Your task to perform on an android device: open a new tab in the chrome app Image 0: 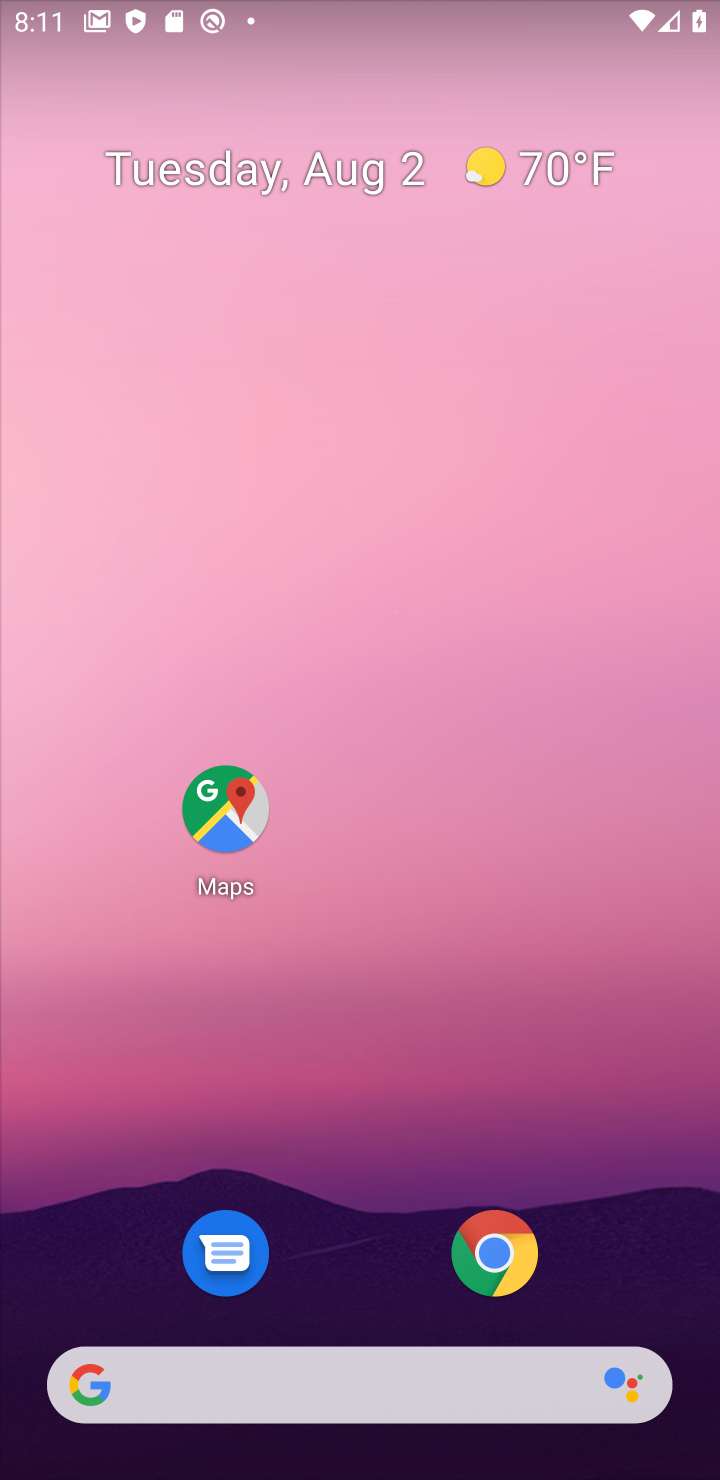
Step 0: click (495, 1250)
Your task to perform on an android device: open a new tab in the chrome app Image 1: 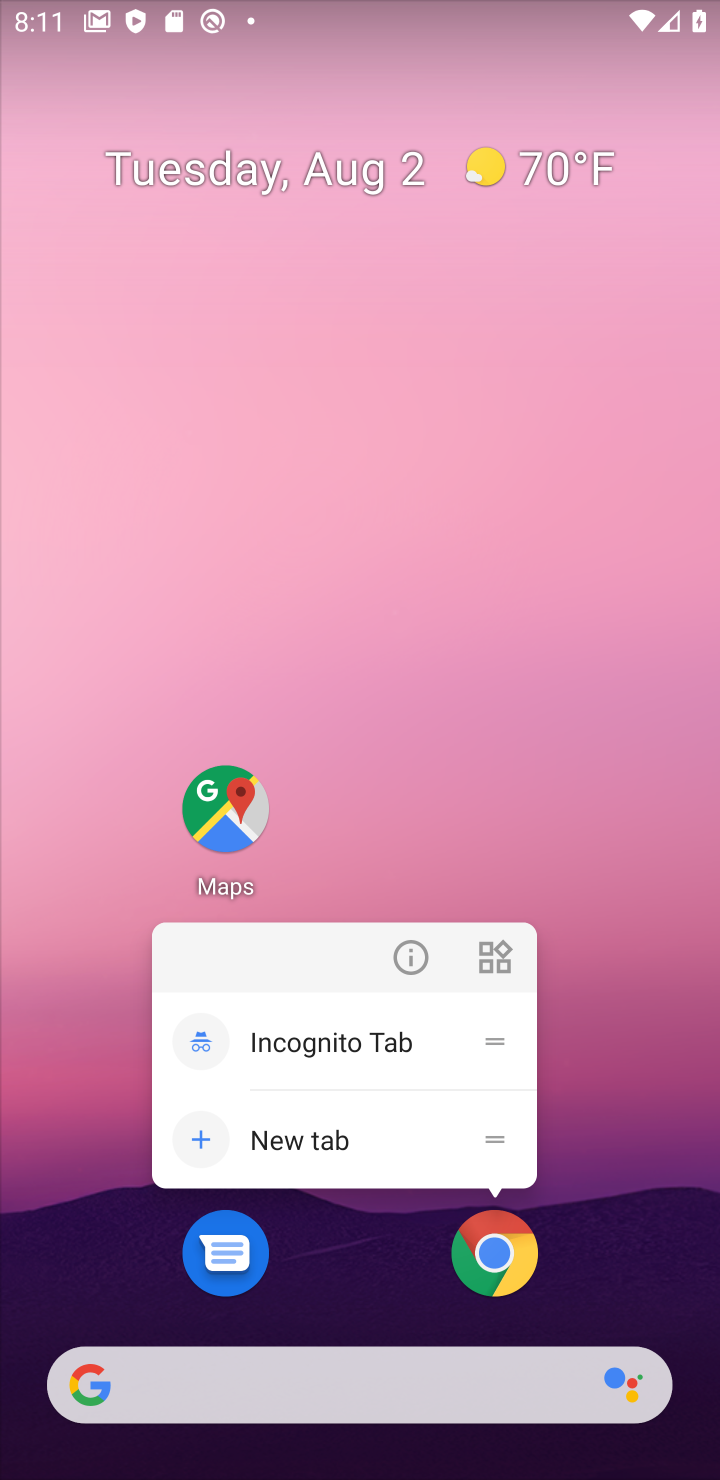
Step 1: click (495, 1250)
Your task to perform on an android device: open a new tab in the chrome app Image 2: 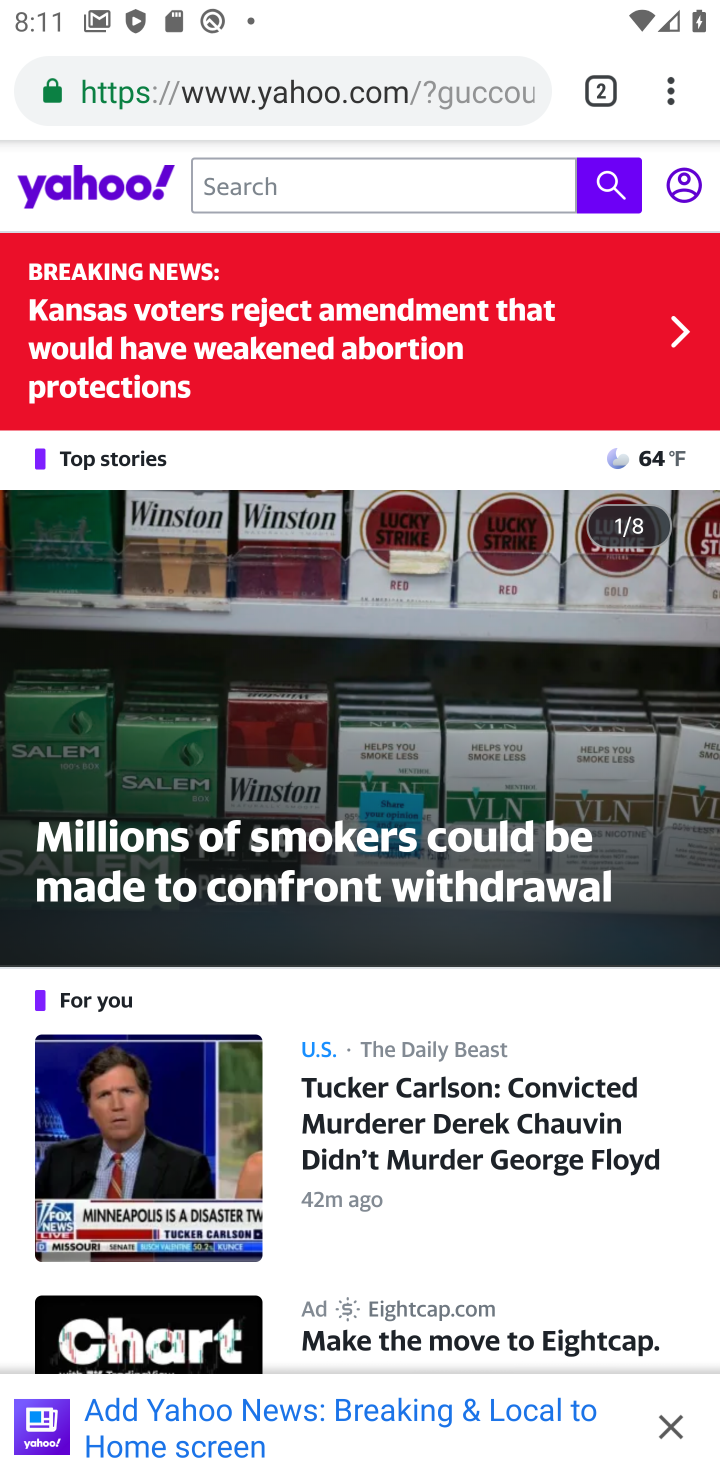
Step 2: task complete